Your task to perform on an android device: Go to Wikipedia Image 0: 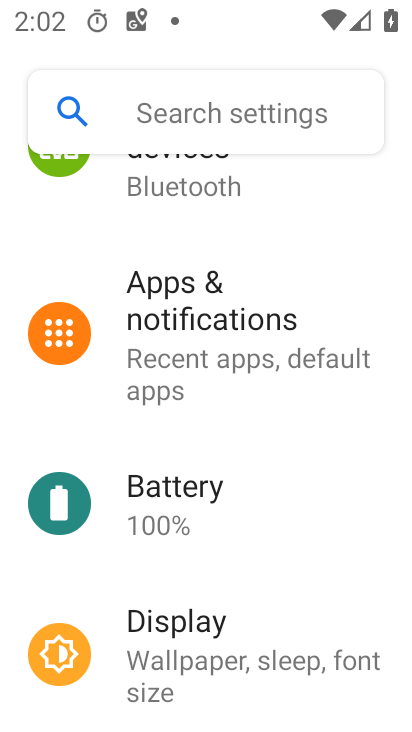
Step 0: press home button
Your task to perform on an android device: Go to Wikipedia Image 1: 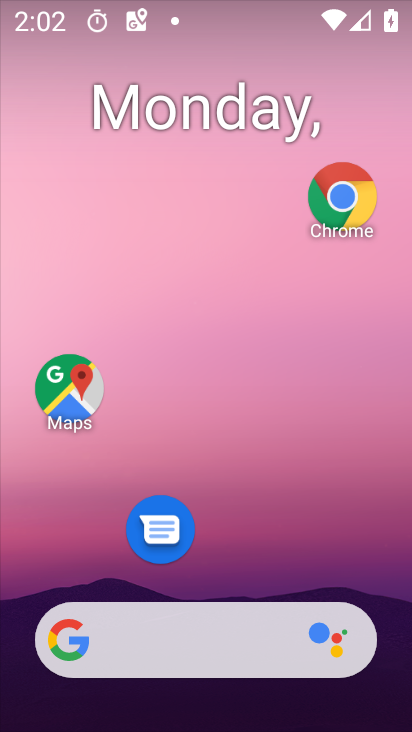
Step 1: click (333, 216)
Your task to perform on an android device: Go to Wikipedia Image 2: 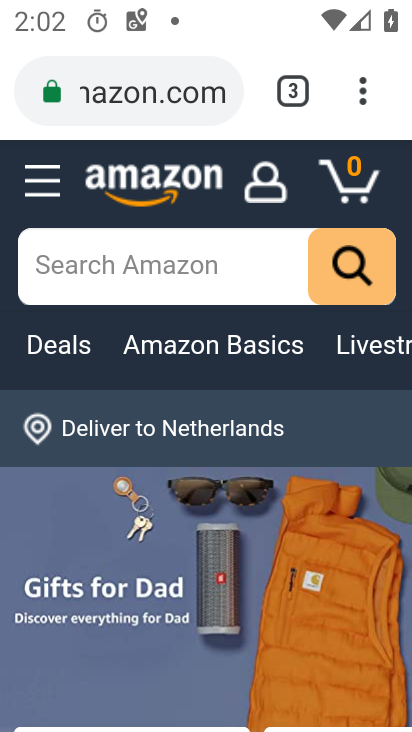
Step 2: click (294, 102)
Your task to perform on an android device: Go to Wikipedia Image 3: 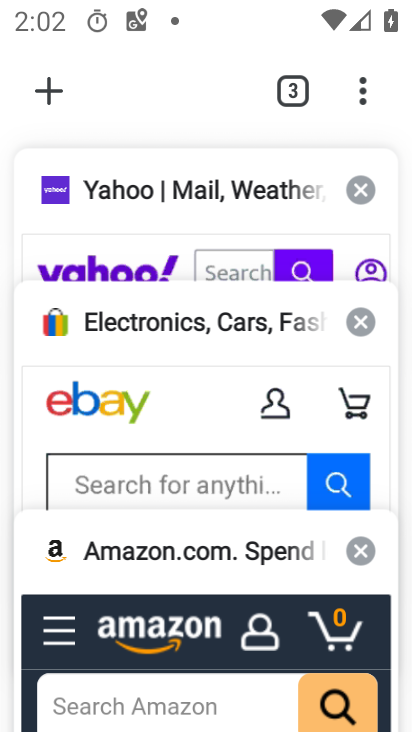
Step 3: click (49, 88)
Your task to perform on an android device: Go to Wikipedia Image 4: 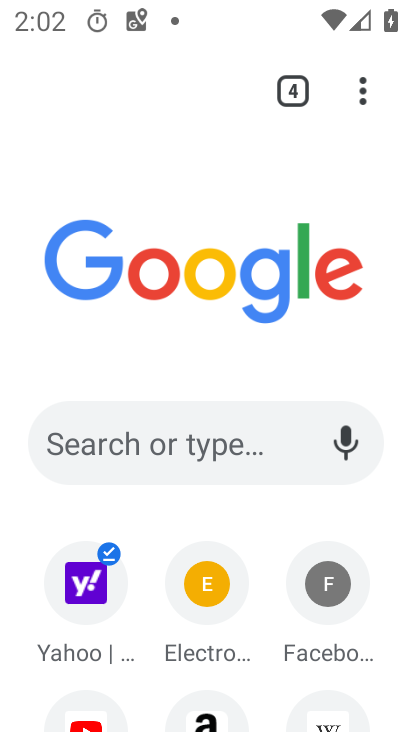
Step 4: click (316, 708)
Your task to perform on an android device: Go to Wikipedia Image 5: 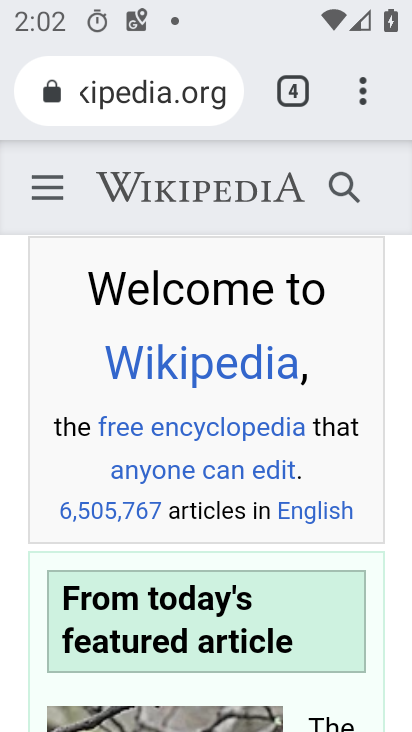
Step 5: task complete